Your task to perform on an android device: Open battery settings Image 0: 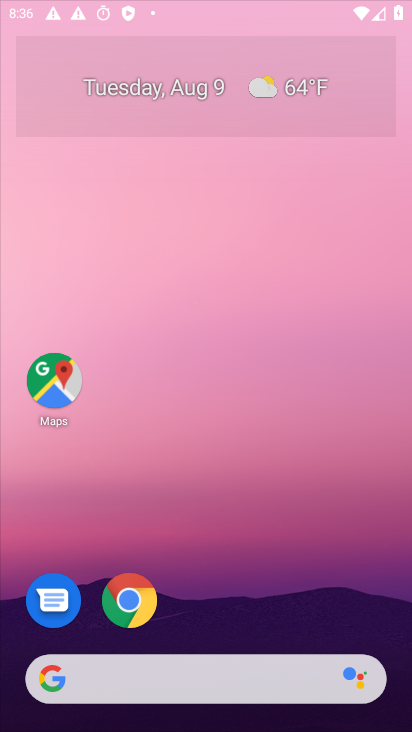
Step 0: press home button
Your task to perform on an android device: Open battery settings Image 1: 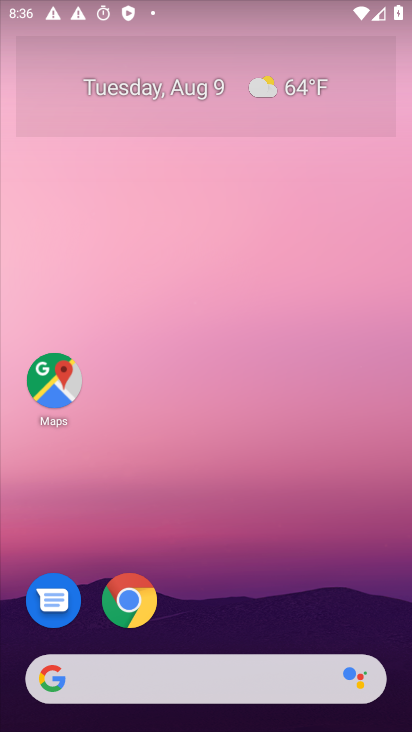
Step 1: drag from (294, 609) to (200, 2)
Your task to perform on an android device: Open battery settings Image 2: 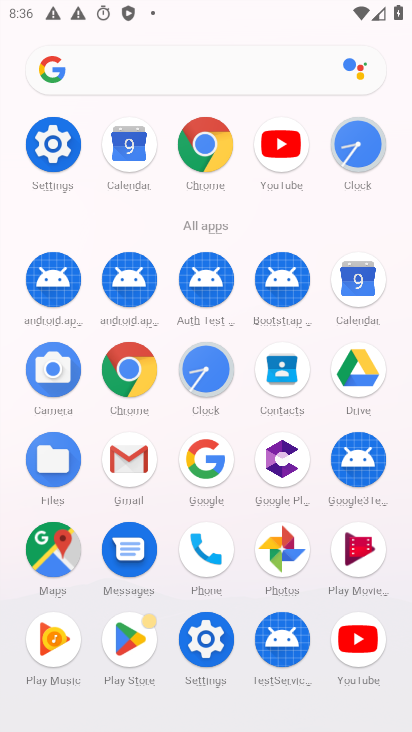
Step 2: click (63, 148)
Your task to perform on an android device: Open battery settings Image 3: 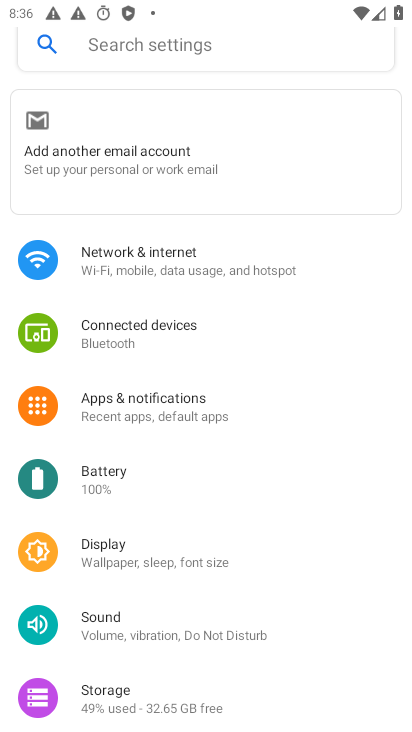
Step 3: click (89, 490)
Your task to perform on an android device: Open battery settings Image 4: 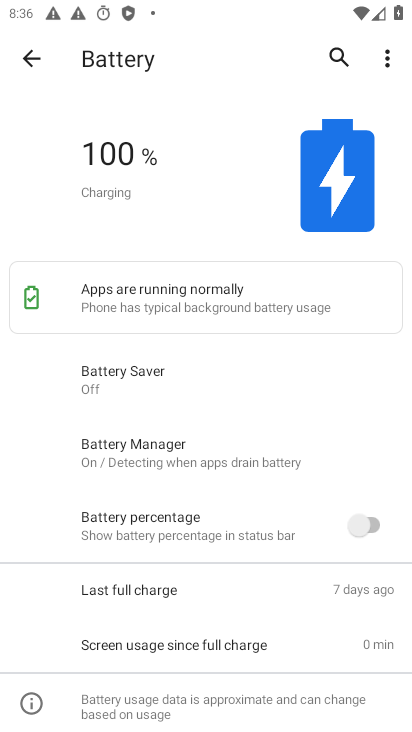
Step 4: task complete